Your task to perform on an android device: delete browsing data in the chrome app Image 0: 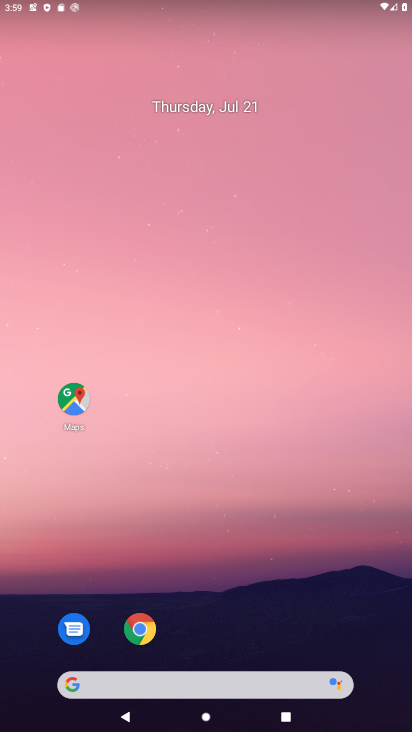
Step 0: drag from (300, 575) to (339, 21)
Your task to perform on an android device: delete browsing data in the chrome app Image 1: 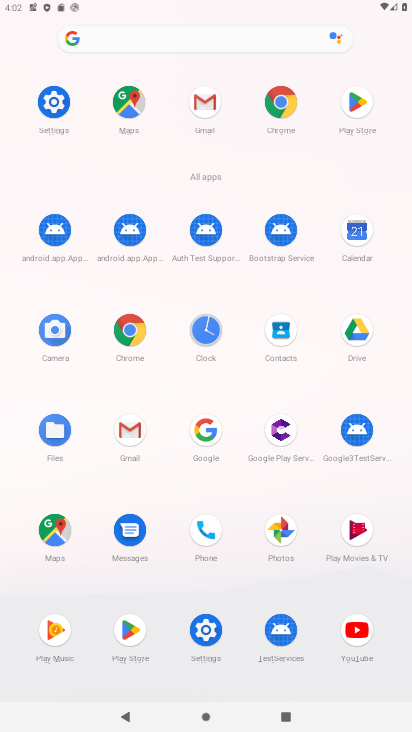
Step 1: click (284, 112)
Your task to perform on an android device: delete browsing data in the chrome app Image 2: 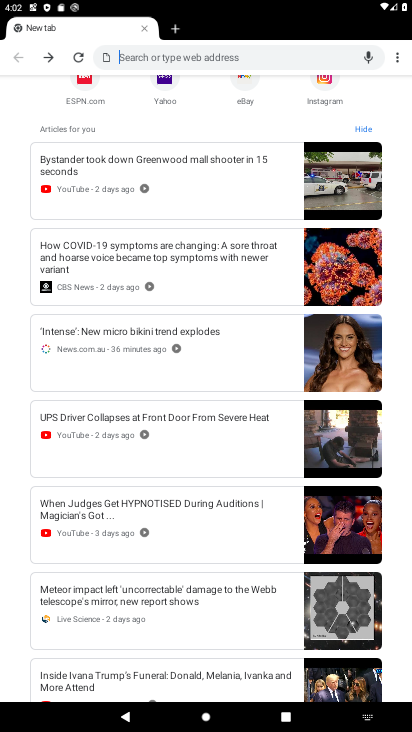
Step 2: task complete